Your task to perform on an android device: Open Google Chrome and open the bookmarks view Image 0: 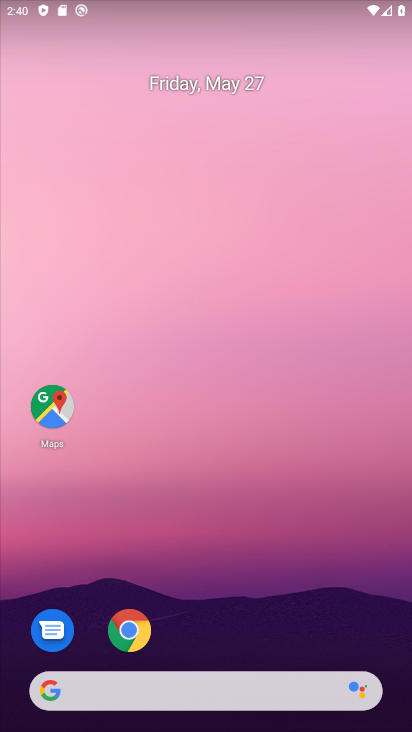
Step 0: click (131, 615)
Your task to perform on an android device: Open Google Chrome and open the bookmarks view Image 1: 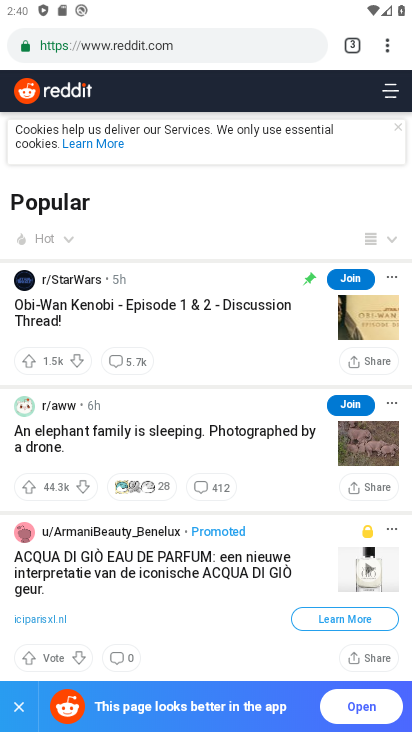
Step 1: task complete